Your task to perform on an android device: Go to display settings Image 0: 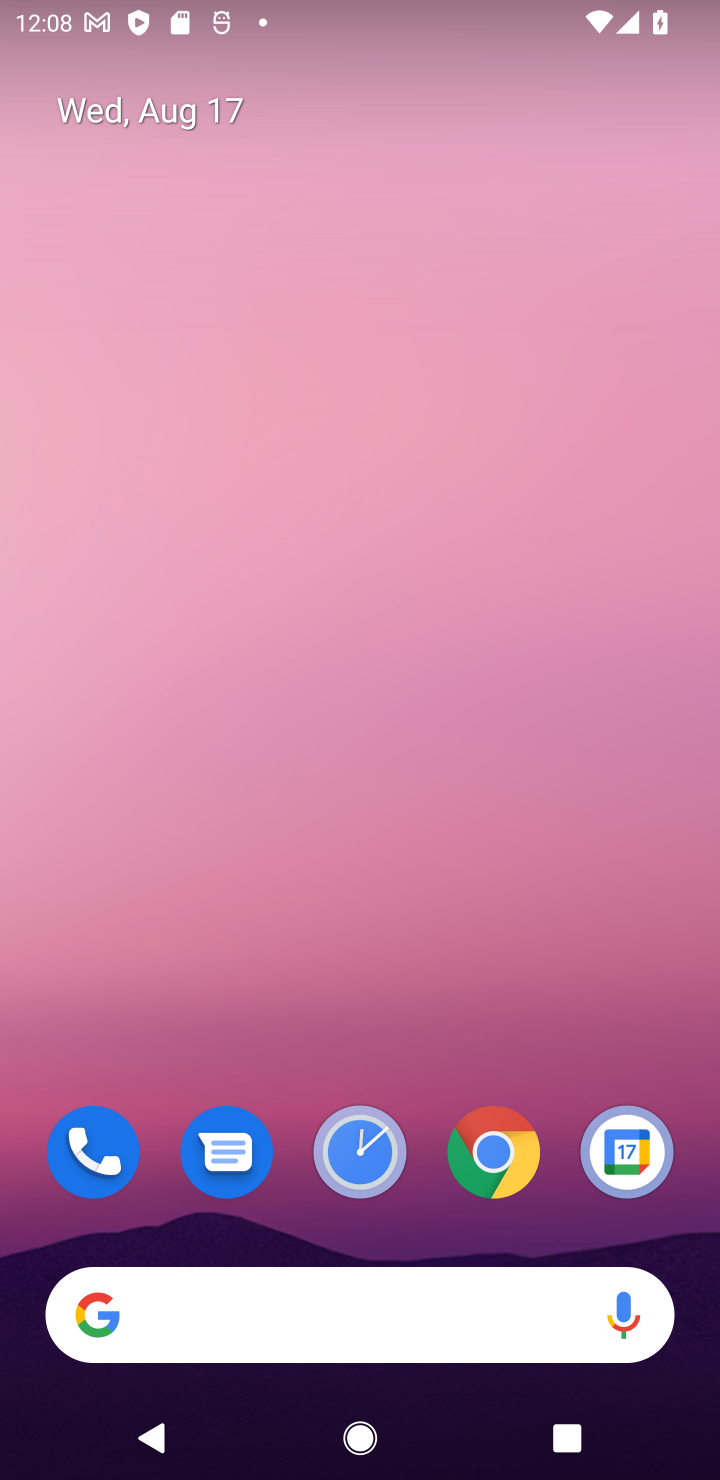
Step 0: drag from (587, 1241) to (325, 172)
Your task to perform on an android device: Go to display settings Image 1: 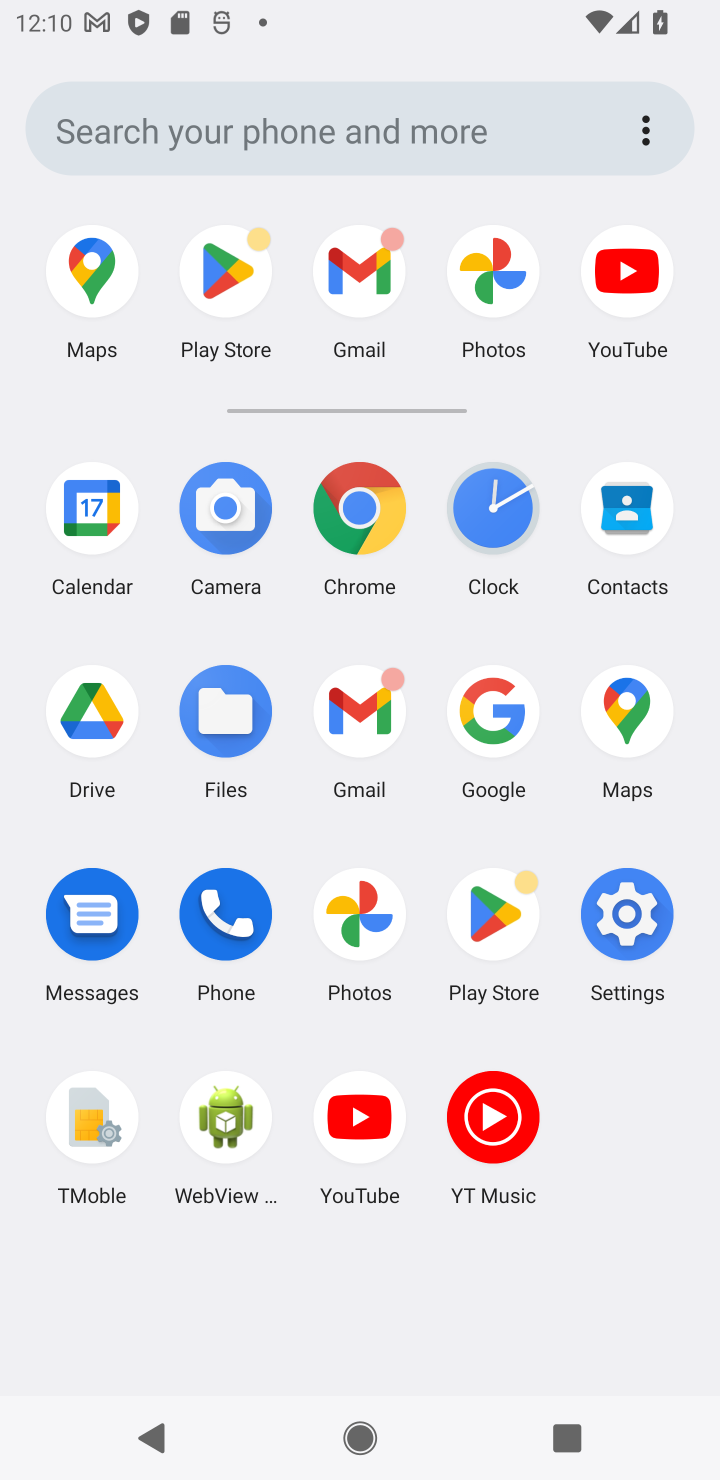
Step 1: click (635, 937)
Your task to perform on an android device: Go to display settings Image 2: 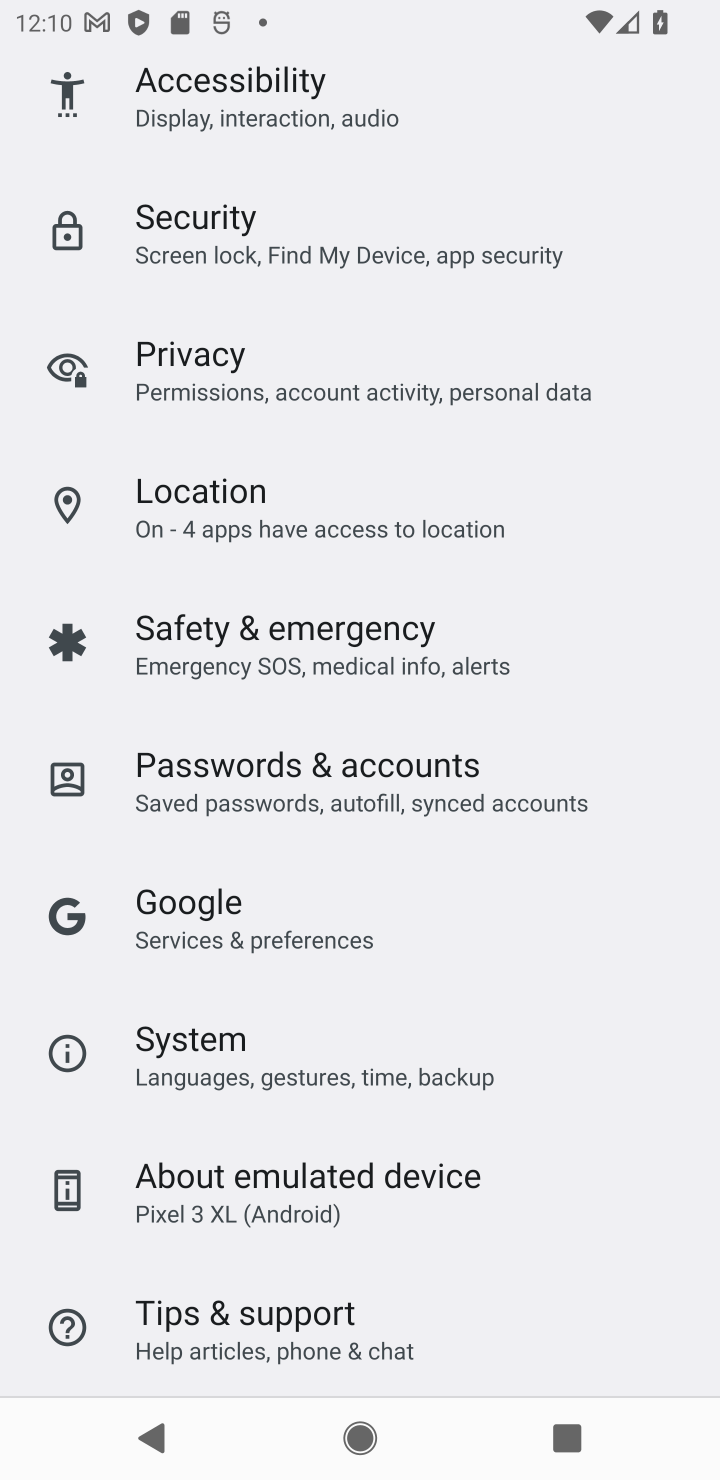
Step 2: drag from (198, 288) to (275, 1246)
Your task to perform on an android device: Go to display settings Image 3: 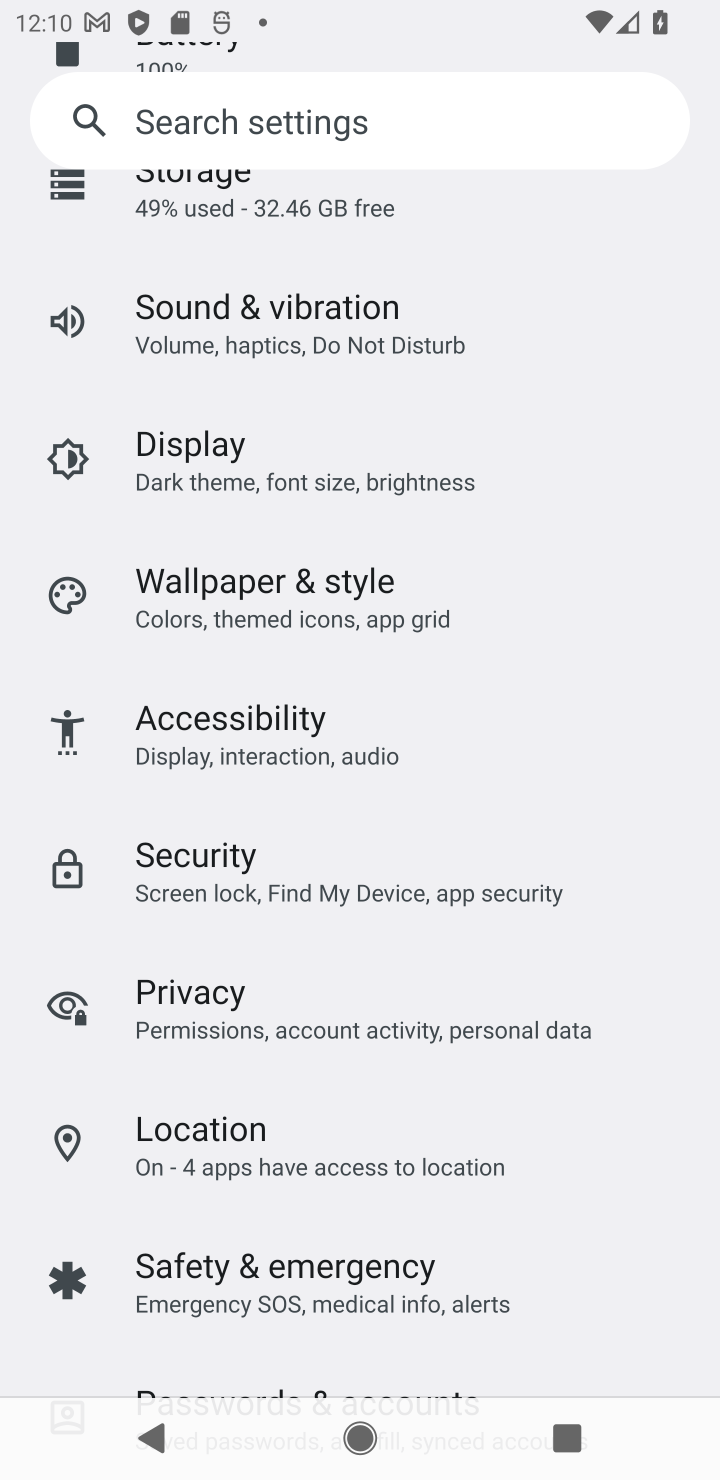
Step 3: click (257, 466)
Your task to perform on an android device: Go to display settings Image 4: 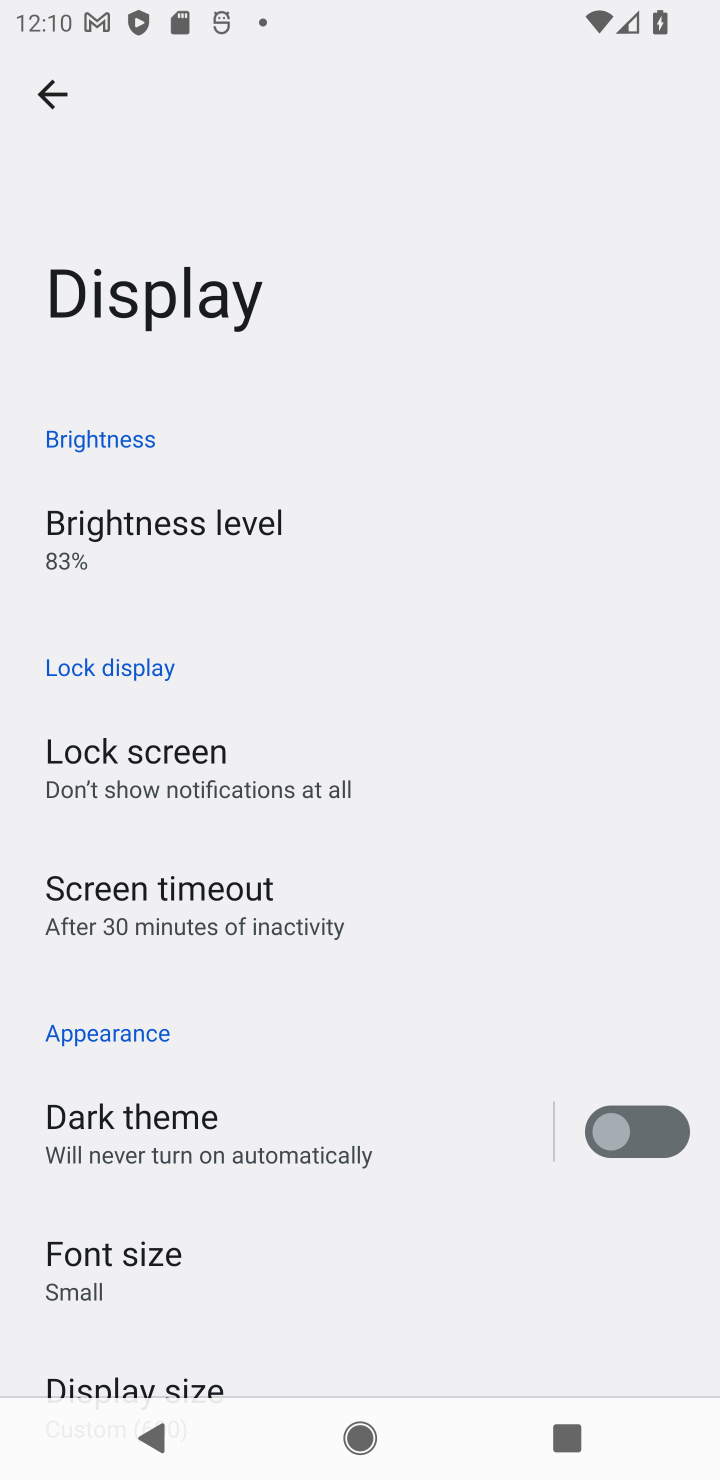
Step 4: task complete